Your task to perform on an android device: What is the recent news? Image 0: 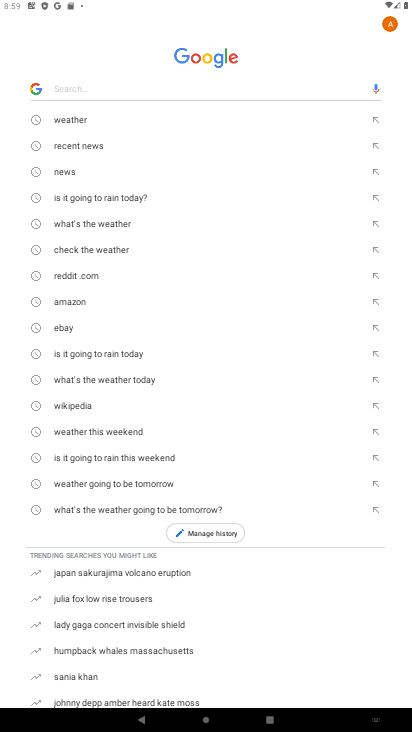
Step 0: press home button
Your task to perform on an android device: What is the recent news? Image 1: 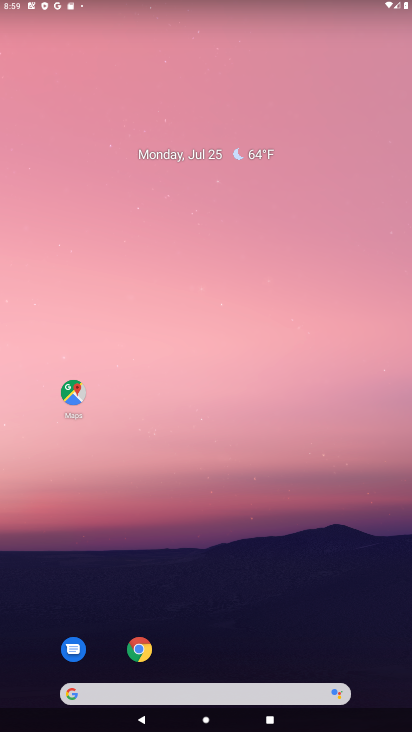
Step 1: task complete